Your task to perform on an android device: Search for Mexican restaurants on Maps Image 0: 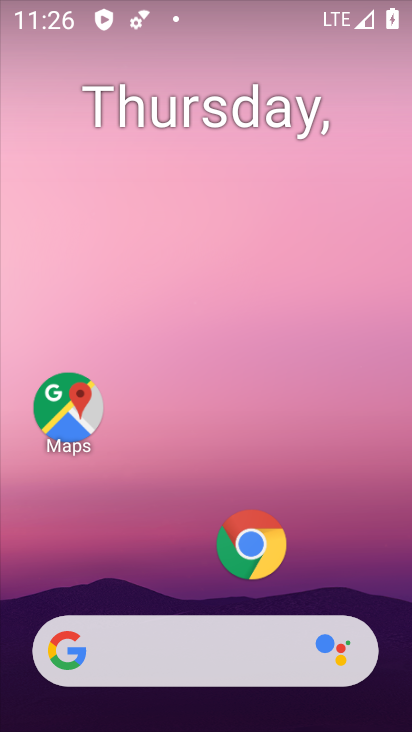
Step 0: drag from (167, 580) to (185, 74)
Your task to perform on an android device: Search for Mexican restaurants on Maps Image 1: 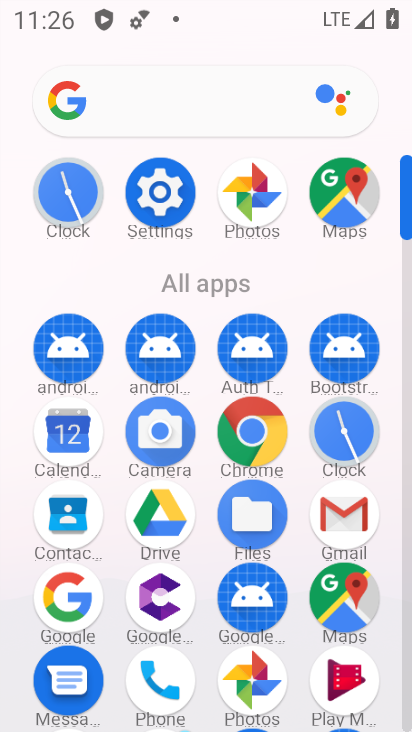
Step 1: click (345, 615)
Your task to perform on an android device: Search for Mexican restaurants on Maps Image 2: 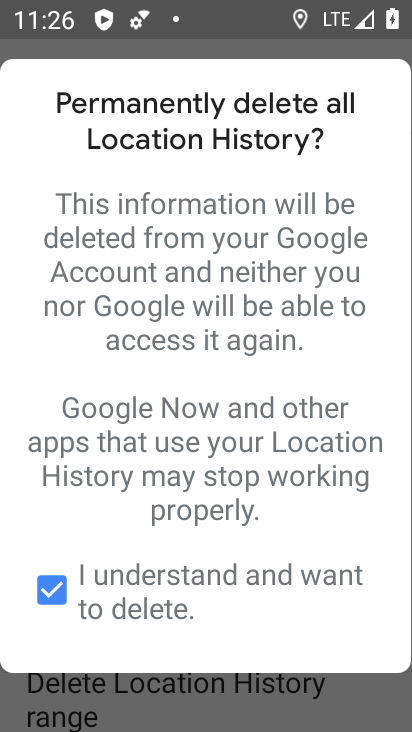
Step 2: press back button
Your task to perform on an android device: Search for Mexican restaurants on Maps Image 3: 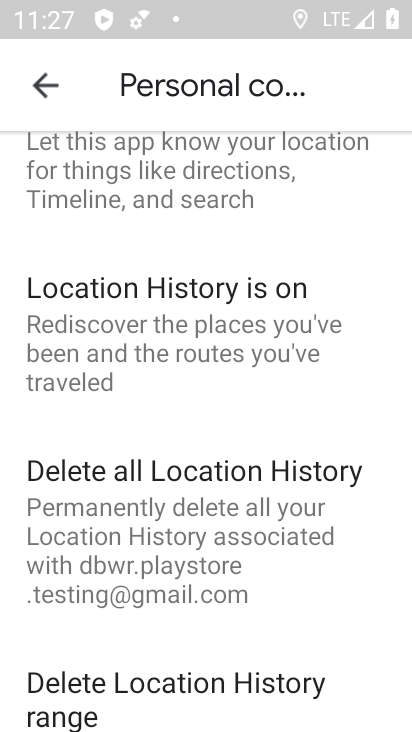
Step 3: click (39, 82)
Your task to perform on an android device: Search for Mexican restaurants on Maps Image 4: 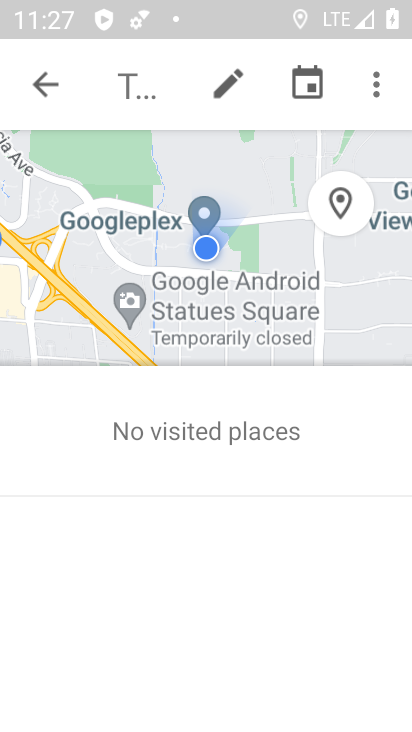
Step 4: click (39, 82)
Your task to perform on an android device: Search for Mexican restaurants on Maps Image 5: 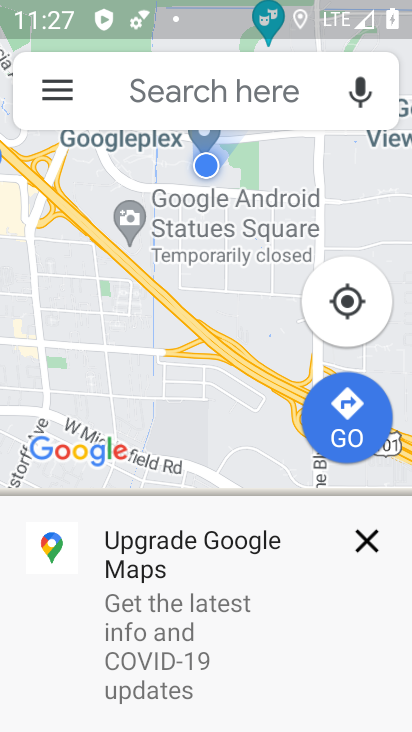
Step 5: click (90, 68)
Your task to perform on an android device: Search for Mexican restaurants on Maps Image 6: 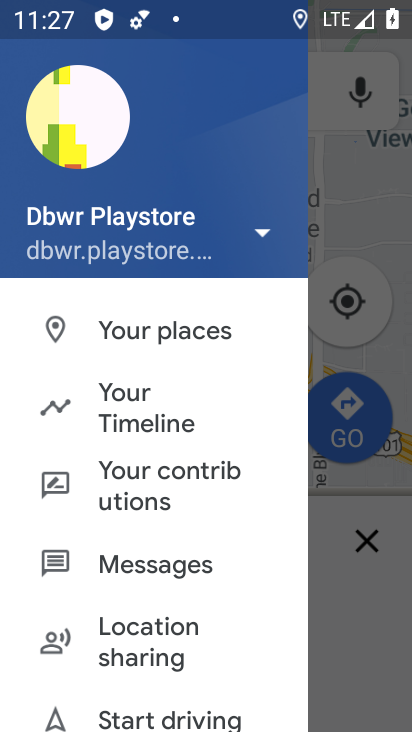
Step 6: click (325, 97)
Your task to perform on an android device: Search for Mexican restaurants on Maps Image 7: 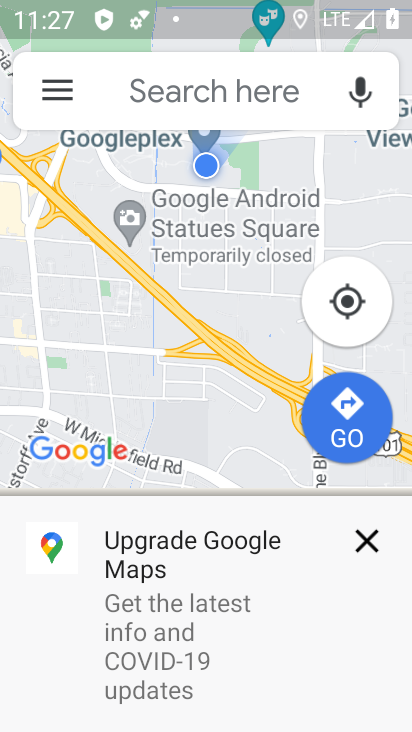
Step 7: click (289, 103)
Your task to perform on an android device: Search for Mexican restaurants on Maps Image 8: 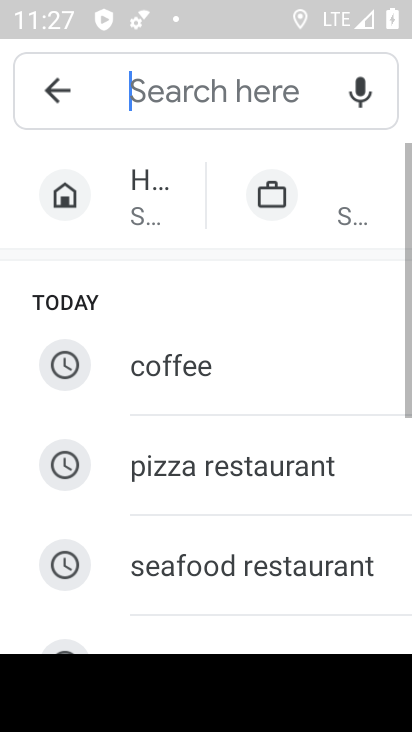
Step 8: drag from (227, 536) to (174, 175)
Your task to perform on an android device: Search for Mexican restaurants on Maps Image 9: 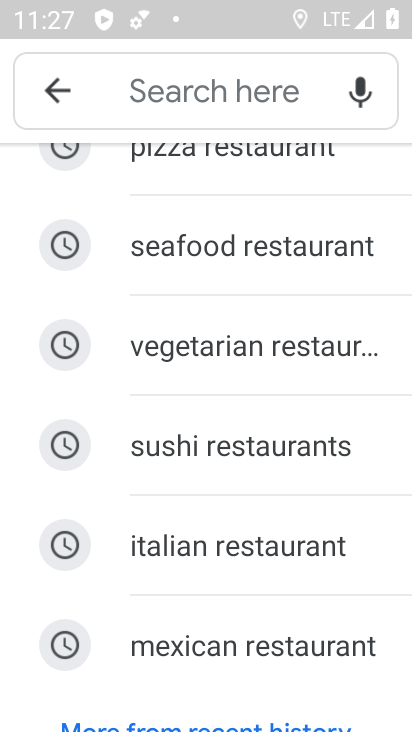
Step 9: click (193, 626)
Your task to perform on an android device: Search for Mexican restaurants on Maps Image 10: 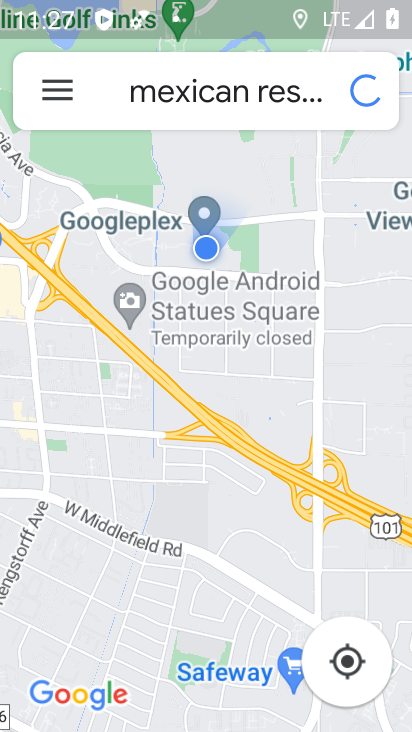
Step 10: task complete